Your task to perform on an android device: turn on data saver in the chrome app Image 0: 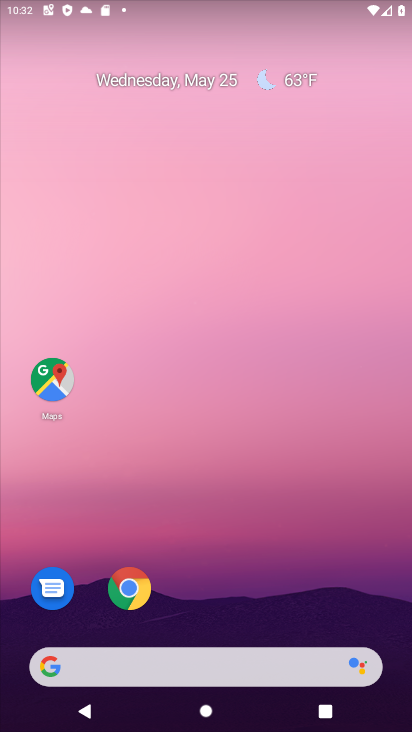
Step 0: click (125, 584)
Your task to perform on an android device: turn on data saver in the chrome app Image 1: 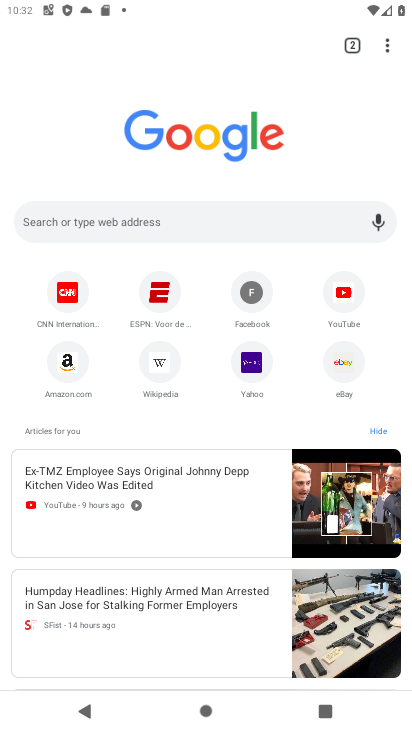
Step 1: click (390, 50)
Your task to perform on an android device: turn on data saver in the chrome app Image 2: 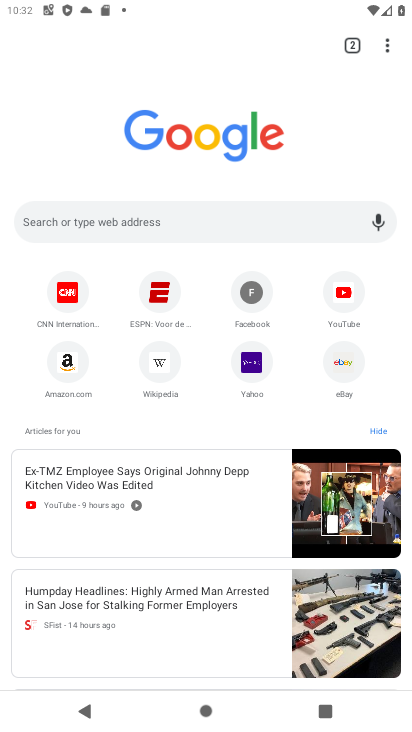
Step 2: click (392, 52)
Your task to perform on an android device: turn on data saver in the chrome app Image 3: 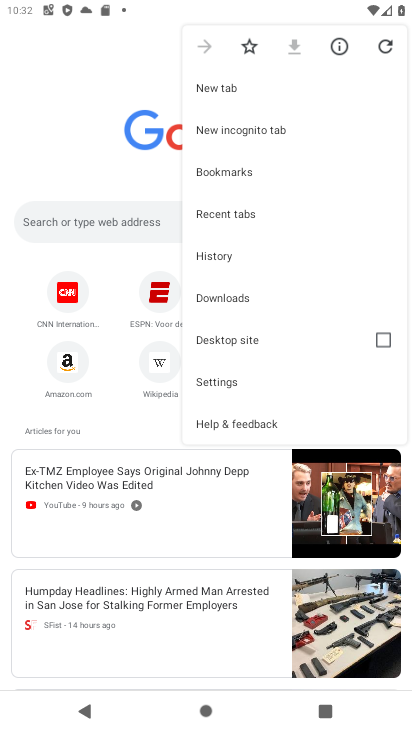
Step 3: click (249, 385)
Your task to perform on an android device: turn on data saver in the chrome app Image 4: 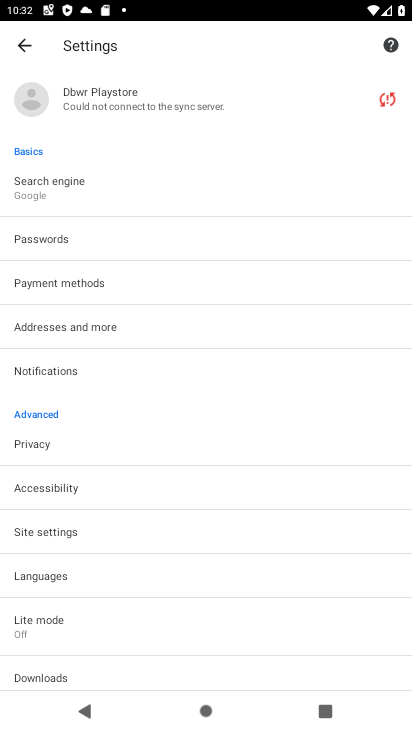
Step 4: drag from (274, 629) to (294, 96)
Your task to perform on an android device: turn on data saver in the chrome app Image 5: 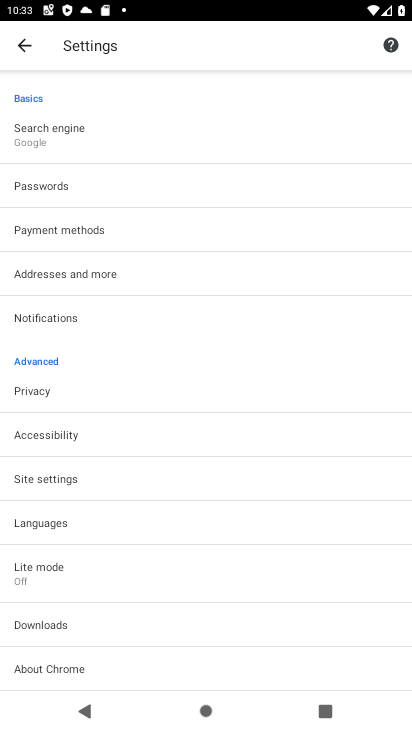
Step 5: drag from (269, 652) to (258, 417)
Your task to perform on an android device: turn on data saver in the chrome app Image 6: 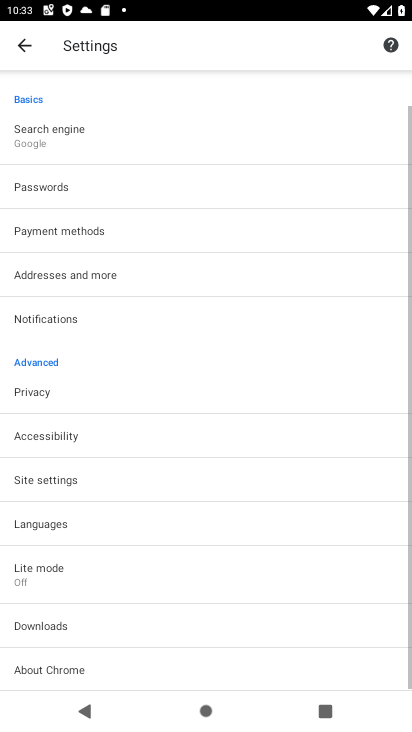
Step 6: click (179, 564)
Your task to perform on an android device: turn on data saver in the chrome app Image 7: 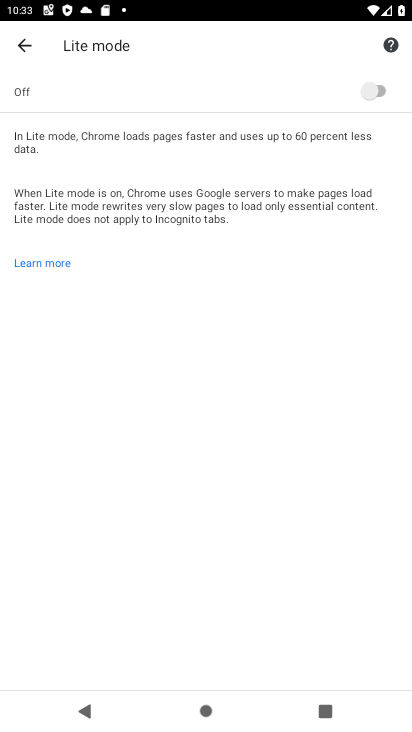
Step 7: click (374, 85)
Your task to perform on an android device: turn on data saver in the chrome app Image 8: 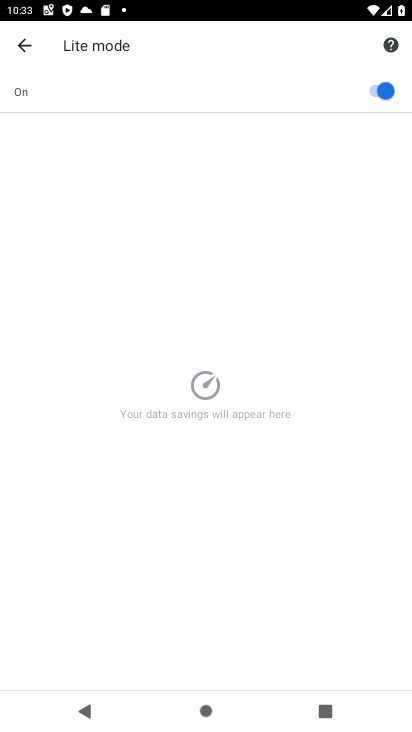
Step 8: task complete